Your task to perform on an android device: delete browsing data in the chrome app Image 0: 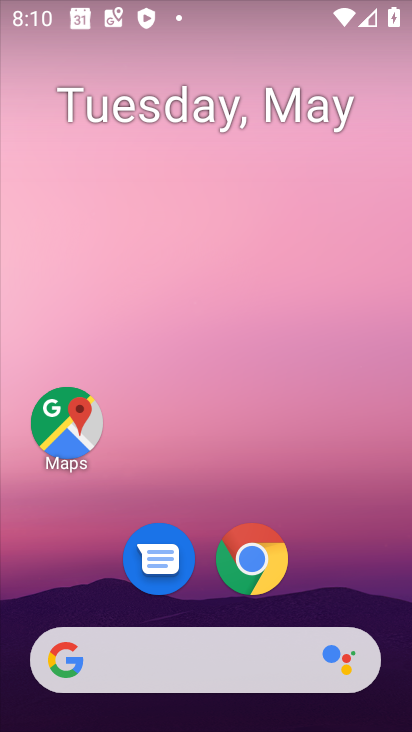
Step 0: click (258, 570)
Your task to perform on an android device: delete browsing data in the chrome app Image 1: 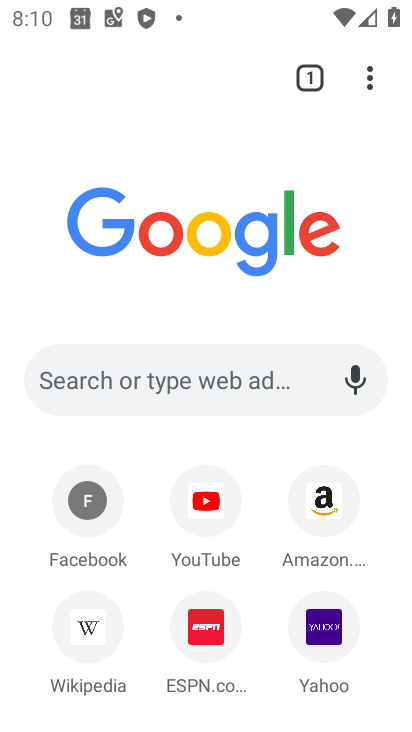
Step 1: drag from (376, 72) to (108, 438)
Your task to perform on an android device: delete browsing data in the chrome app Image 2: 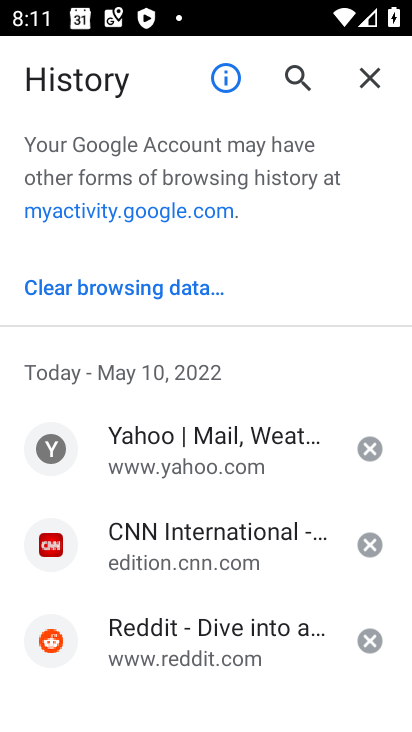
Step 2: click (74, 276)
Your task to perform on an android device: delete browsing data in the chrome app Image 3: 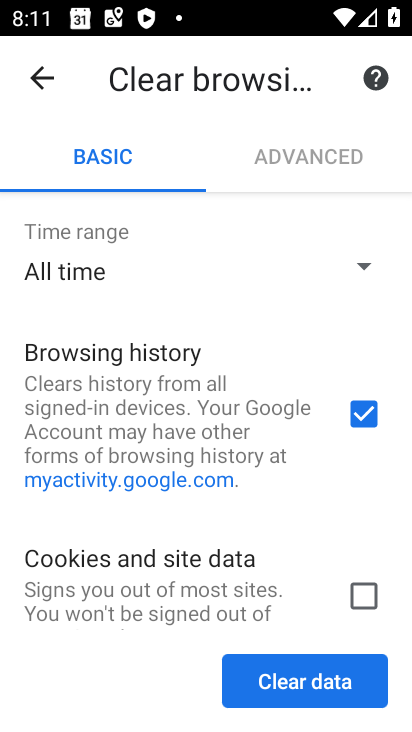
Step 3: click (292, 688)
Your task to perform on an android device: delete browsing data in the chrome app Image 4: 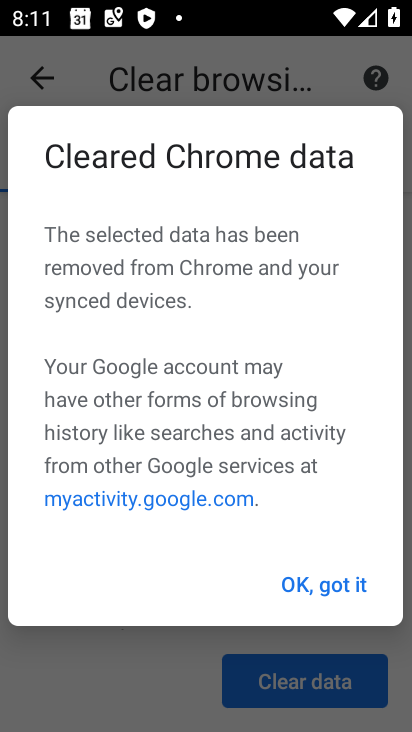
Step 4: click (343, 587)
Your task to perform on an android device: delete browsing data in the chrome app Image 5: 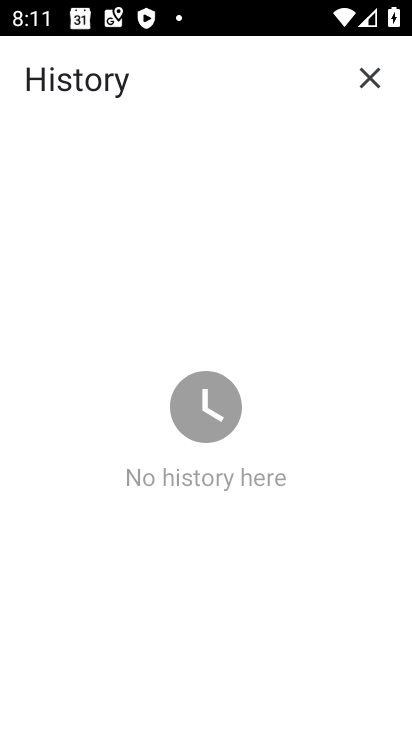
Step 5: task complete